Your task to perform on an android device: Open the map Image 0: 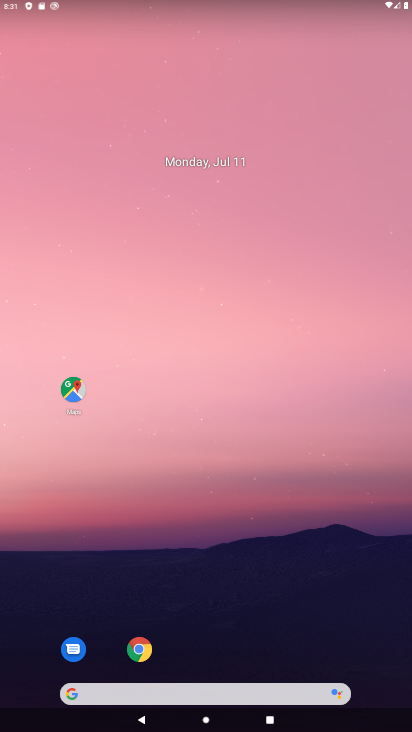
Step 0: click (71, 389)
Your task to perform on an android device: Open the map Image 1: 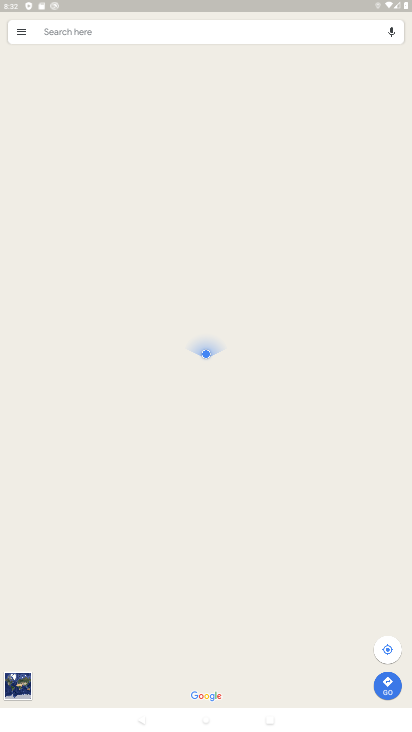
Step 1: task complete